Your task to perform on an android device: Open the calendar app, open the side menu, and click the "Day" option Image 0: 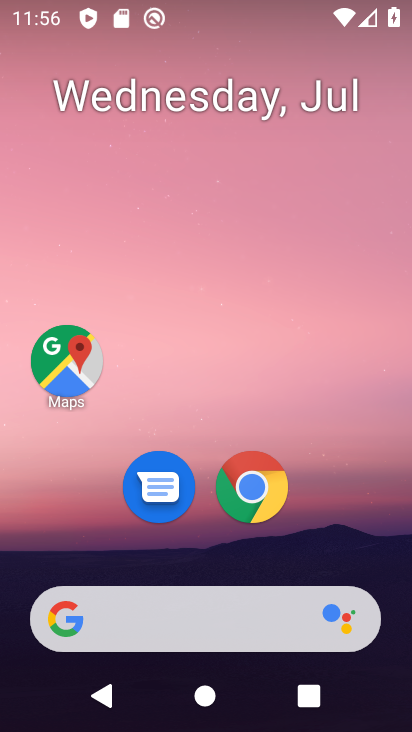
Step 0: drag from (300, 569) to (315, 142)
Your task to perform on an android device: Open the calendar app, open the side menu, and click the "Day" option Image 1: 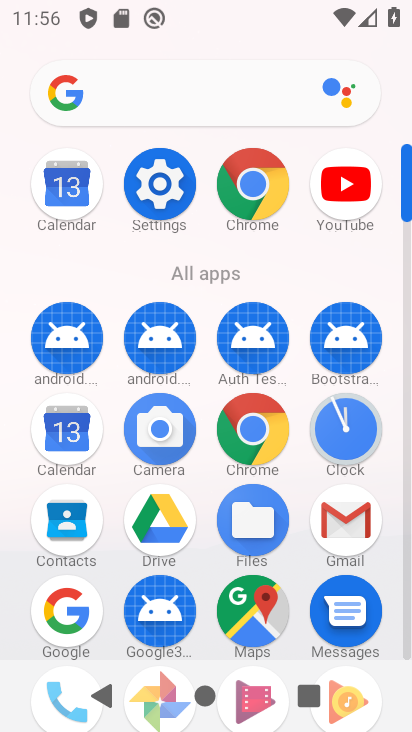
Step 1: click (68, 427)
Your task to perform on an android device: Open the calendar app, open the side menu, and click the "Day" option Image 2: 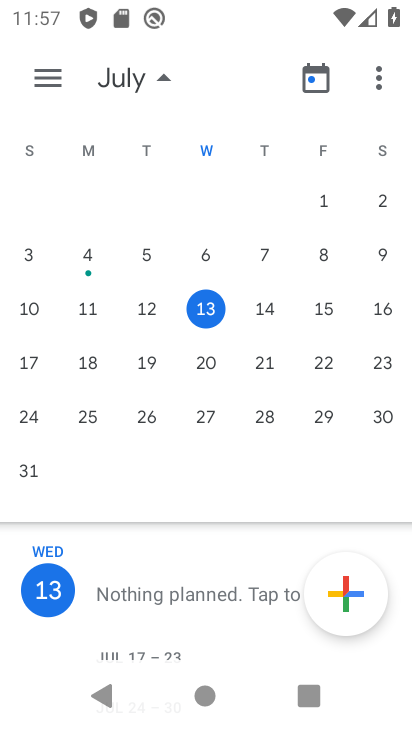
Step 2: click (56, 80)
Your task to perform on an android device: Open the calendar app, open the side menu, and click the "Day" option Image 3: 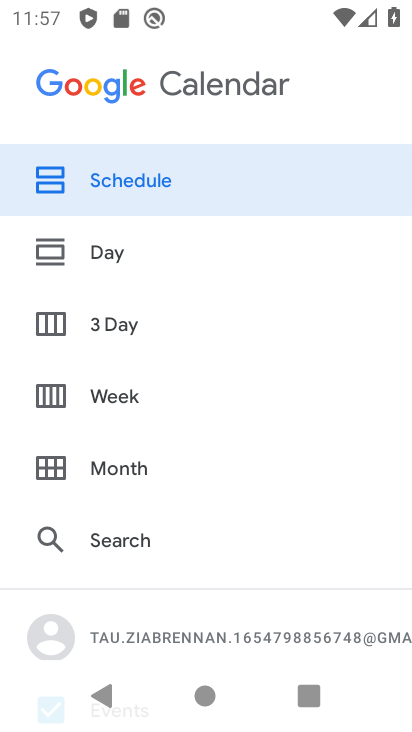
Step 3: click (140, 262)
Your task to perform on an android device: Open the calendar app, open the side menu, and click the "Day" option Image 4: 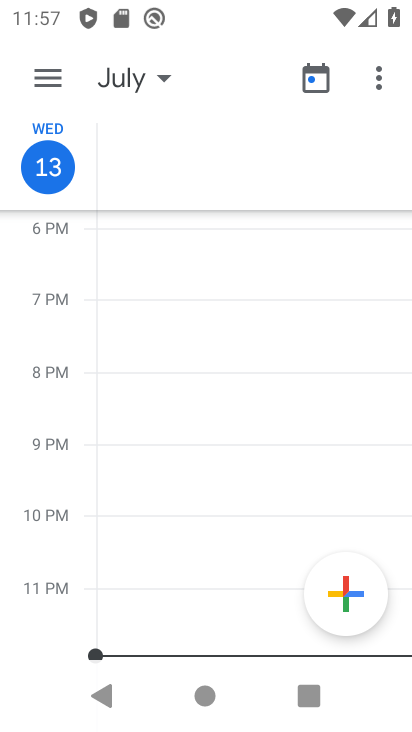
Step 4: task complete